Your task to perform on an android device: turn off sleep mode Image 0: 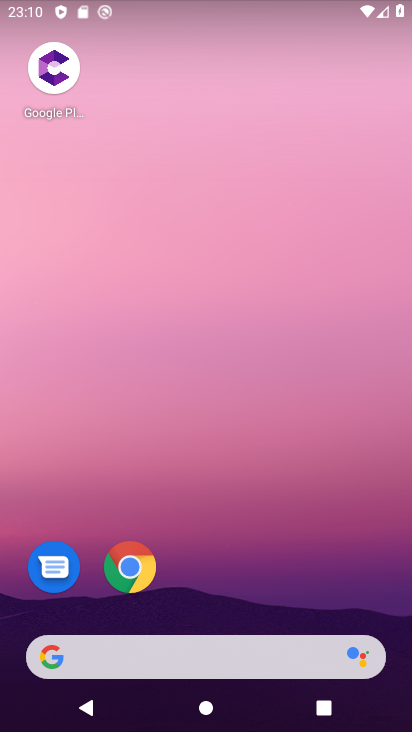
Step 0: drag from (211, 494) to (230, 88)
Your task to perform on an android device: turn off sleep mode Image 1: 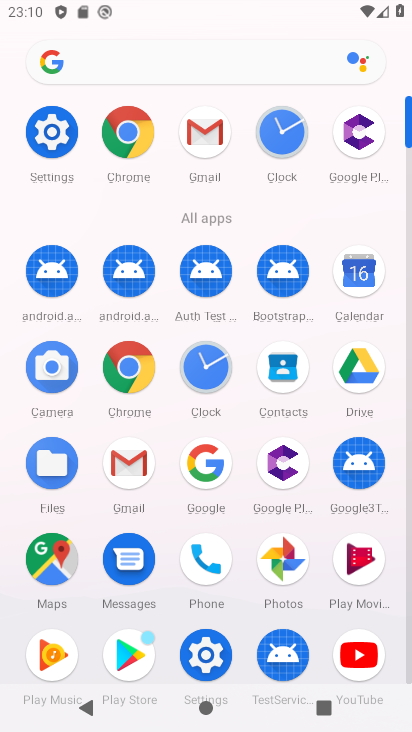
Step 1: click (46, 137)
Your task to perform on an android device: turn off sleep mode Image 2: 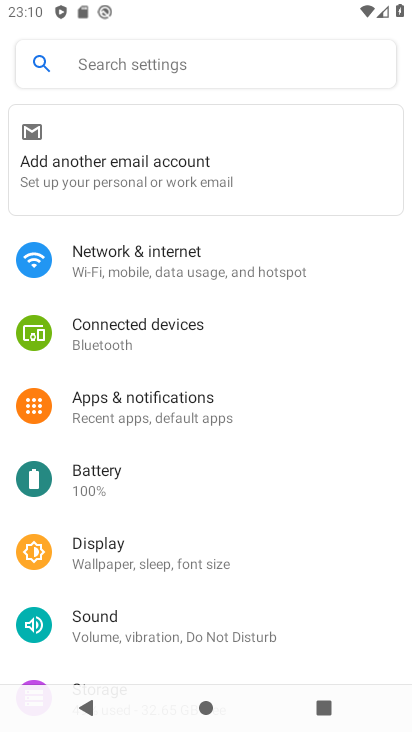
Step 2: click (123, 392)
Your task to perform on an android device: turn off sleep mode Image 3: 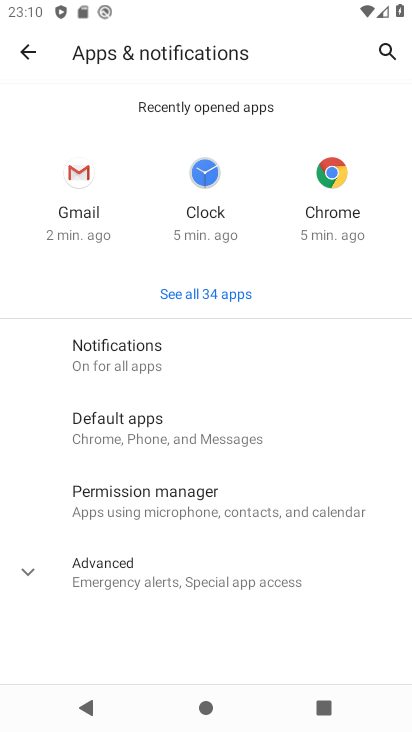
Step 3: task complete